Your task to perform on an android device: turn on the 24-hour format for clock Image 0: 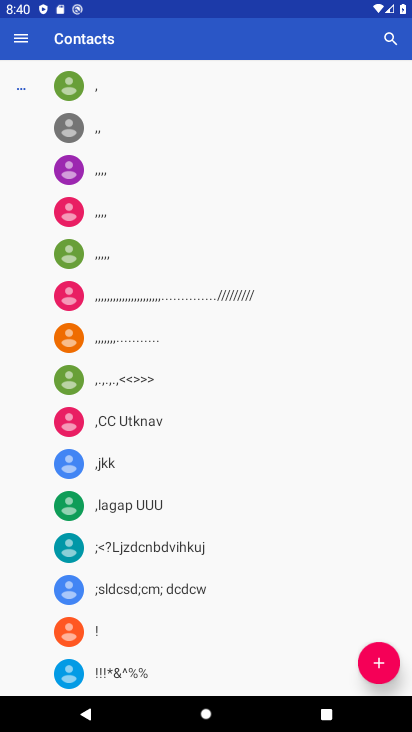
Step 0: press home button
Your task to perform on an android device: turn on the 24-hour format for clock Image 1: 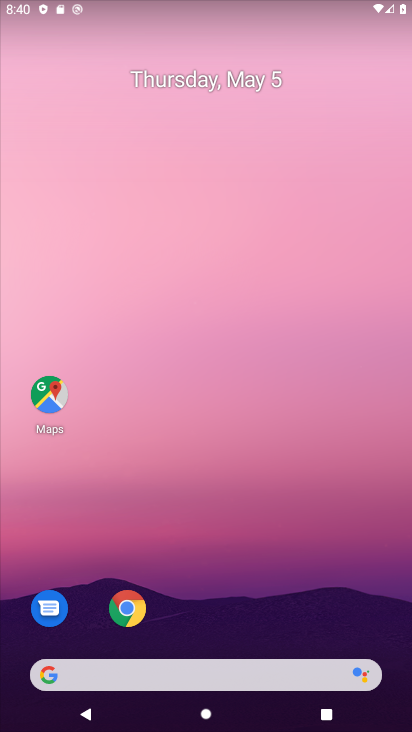
Step 1: drag from (206, 644) to (227, 95)
Your task to perform on an android device: turn on the 24-hour format for clock Image 2: 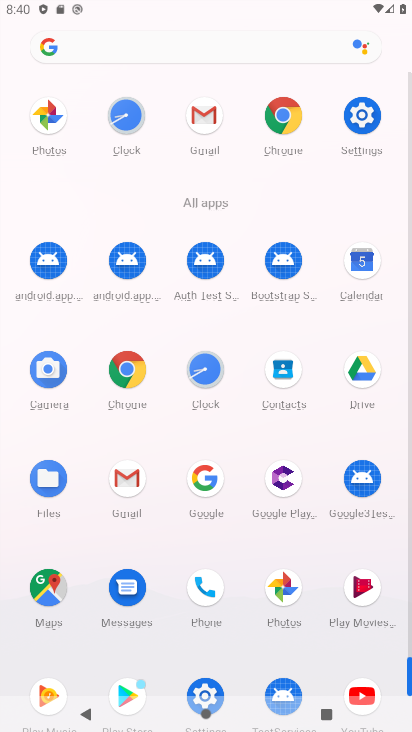
Step 2: click (204, 367)
Your task to perform on an android device: turn on the 24-hour format for clock Image 3: 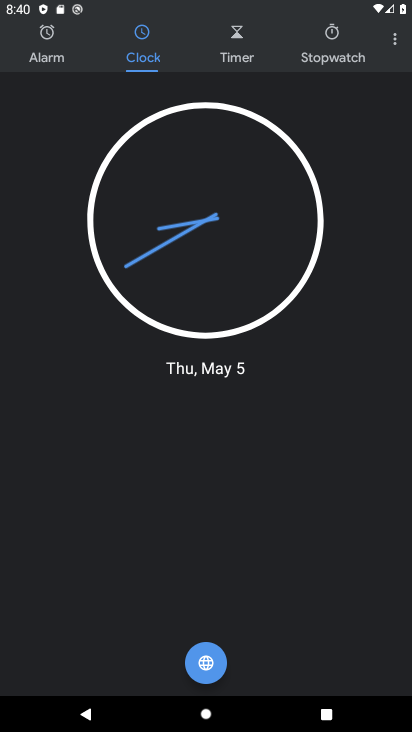
Step 3: drag from (400, 40) to (323, 80)
Your task to perform on an android device: turn on the 24-hour format for clock Image 4: 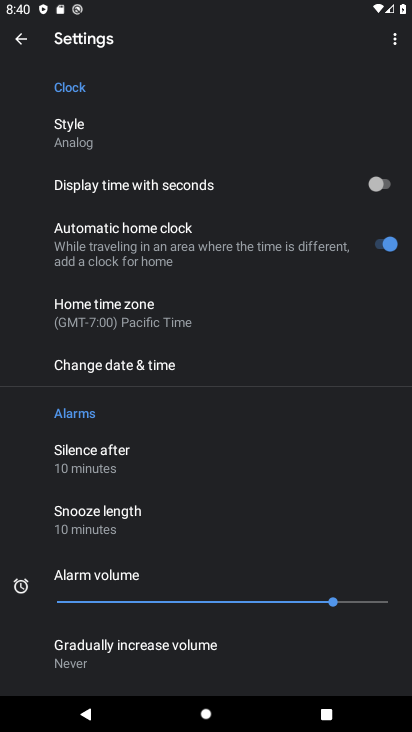
Step 4: click (149, 375)
Your task to perform on an android device: turn on the 24-hour format for clock Image 5: 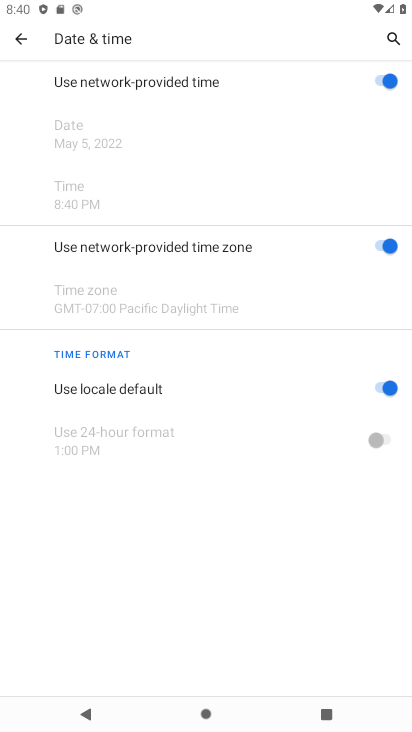
Step 5: click (382, 388)
Your task to perform on an android device: turn on the 24-hour format for clock Image 6: 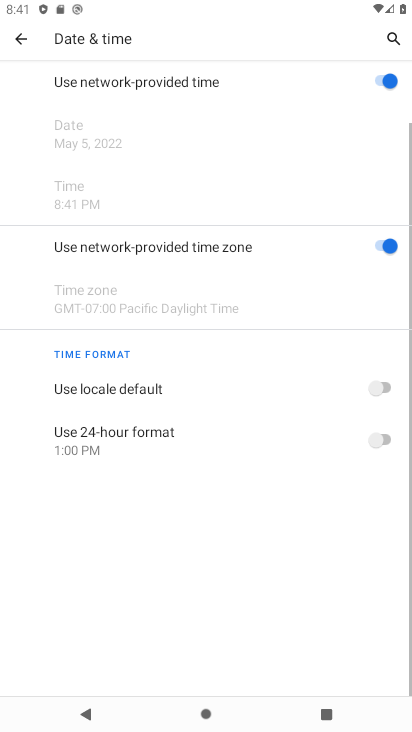
Step 6: click (388, 439)
Your task to perform on an android device: turn on the 24-hour format for clock Image 7: 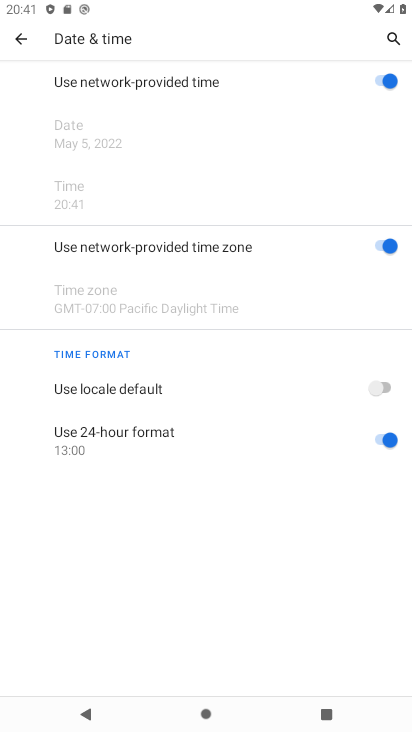
Step 7: task complete